Your task to perform on an android device: turn on bluetooth scan Image 0: 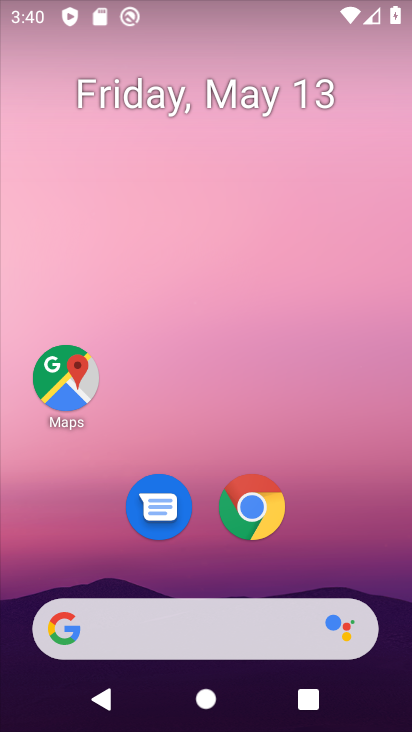
Step 0: drag from (218, 622) to (252, 2)
Your task to perform on an android device: turn on bluetooth scan Image 1: 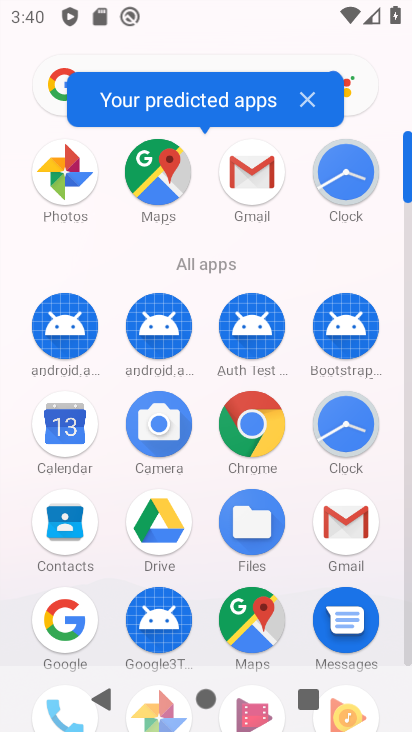
Step 1: drag from (290, 631) to (331, 130)
Your task to perform on an android device: turn on bluetooth scan Image 2: 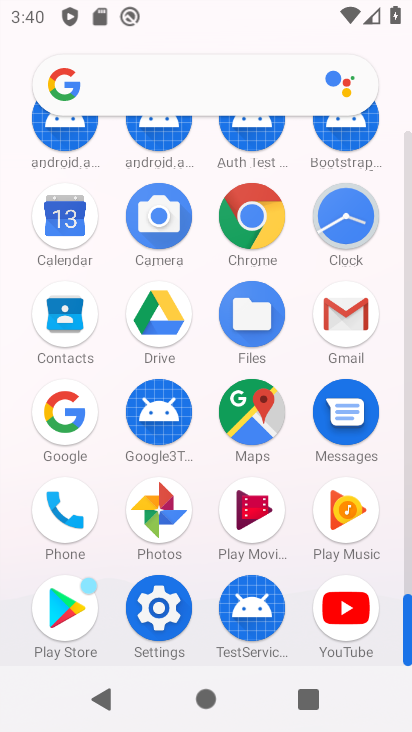
Step 2: click (155, 608)
Your task to perform on an android device: turn on bluetooth scan Image 3: 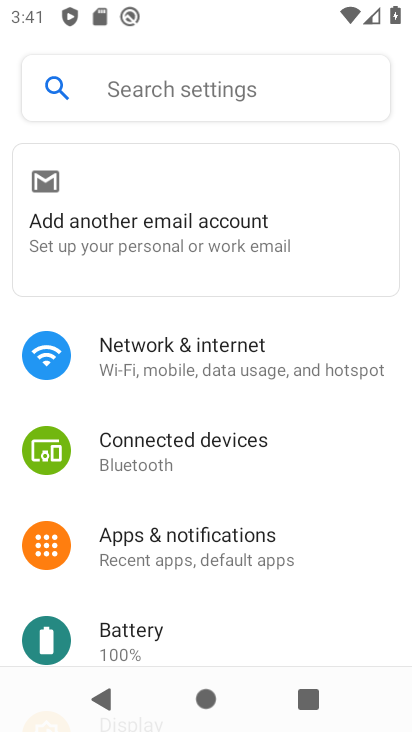
Step 3: drag from (262, 642) to (261, 79)
Your task to perform on an android device: turn on bluetooth scan Image 4: 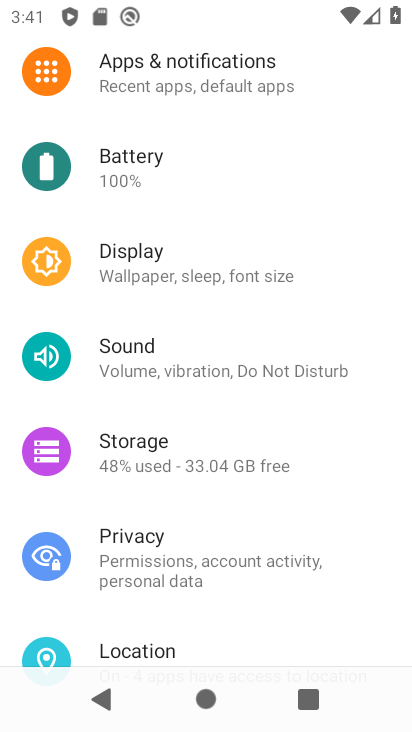
Step 4: drag from (207, 640) to (279, 355)
Your task to perform on an android device: turn on bluetooth scan Image 5: 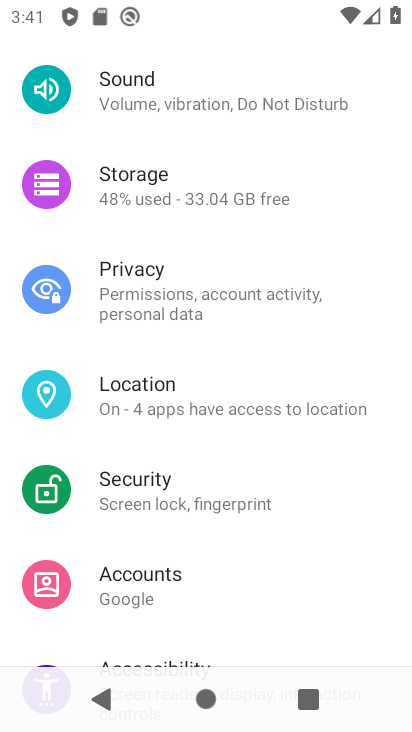
Step 5: click (260, 388)
Your task to perform on an android device: turn on bluetooth scan Image 6: 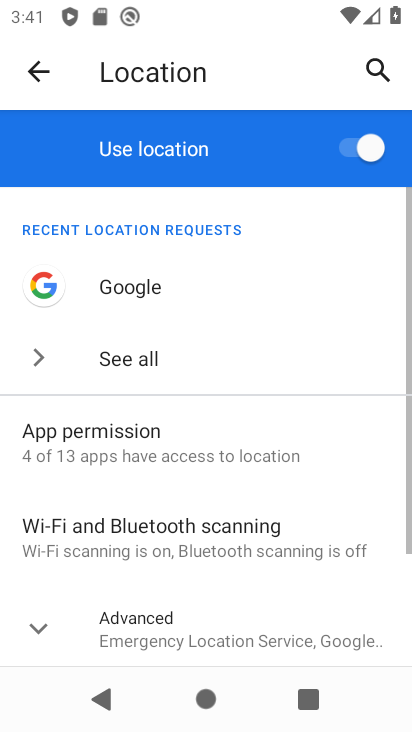
Step 6: click (284, 536)
Your task to perform on an android device: turn on bluetooth scan Image 7: 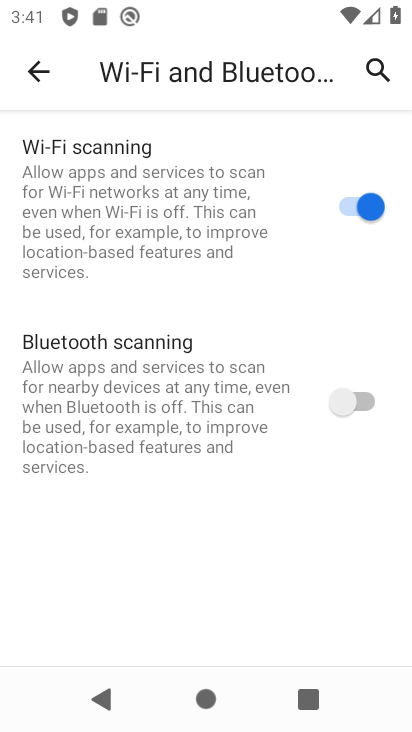
Step 7: click (364, 394)
Your task to perform on an android device: turn on bluetooth scan Image 8: 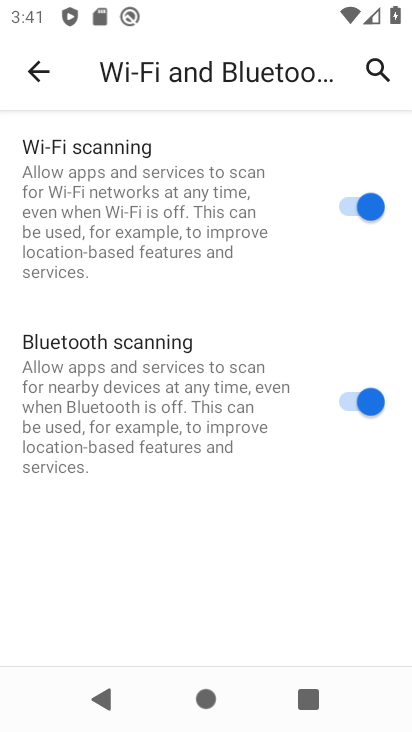
Step 8: task complete